Your task to perform on an android device: Search for sushi restaurants on Maps Image 0: 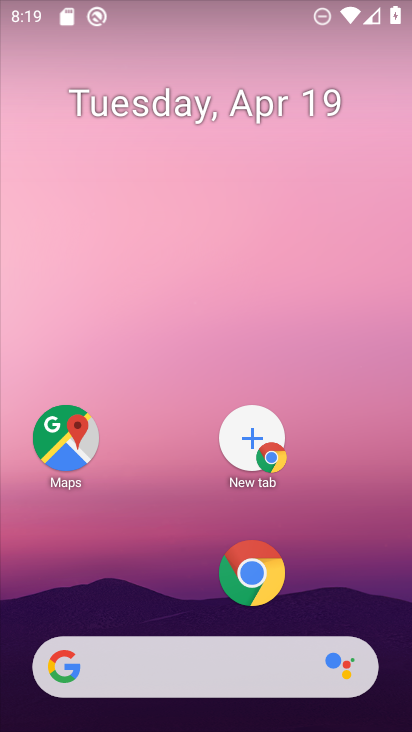
Step 0: click (61, 425)
Your task to perform on an android device: Search for sushi restaurants on Maps Image 1: 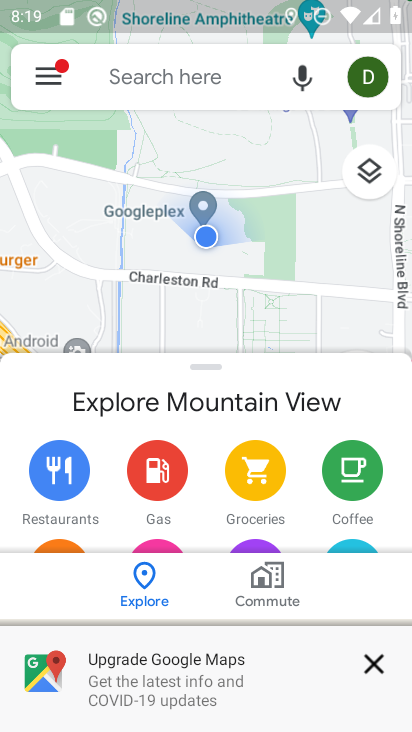
Step 1: click (178, 69)
Your task to perform on an android device: Search for sushi restaurants on Maps Image 2: 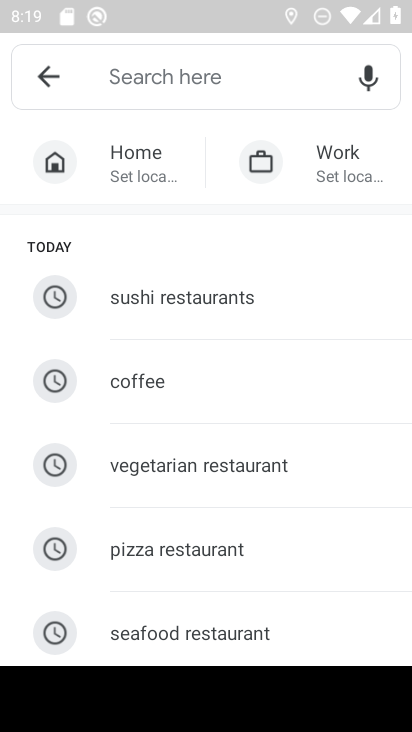
Step 2: click (185, 290)
Your task to perform on an android device: Search for sushi restaurants on Maps Image 3: 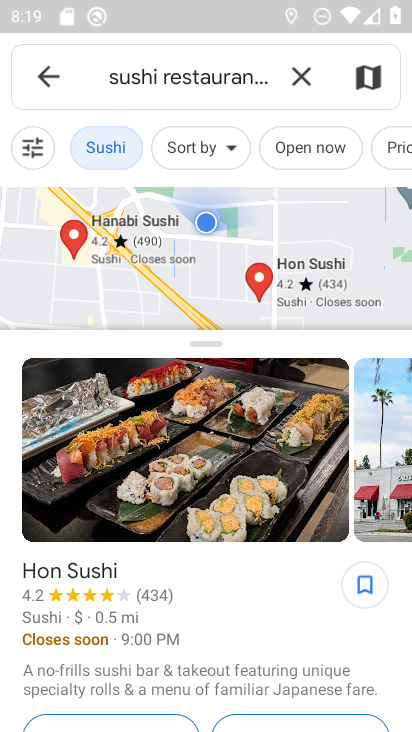
Step 3: task complete